Your task to perform on an android device: turn on bluetooth scan Image 0: 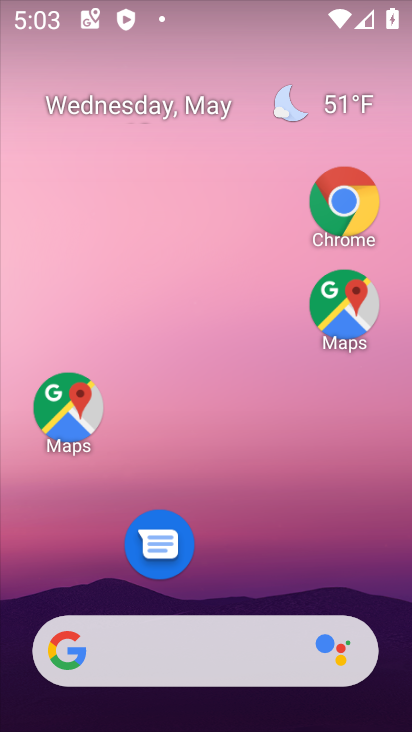
Step 0: drag from (215, 579) to (192, 150)
Your task to perform on an android device: turn on bluetooth scan Image 1: 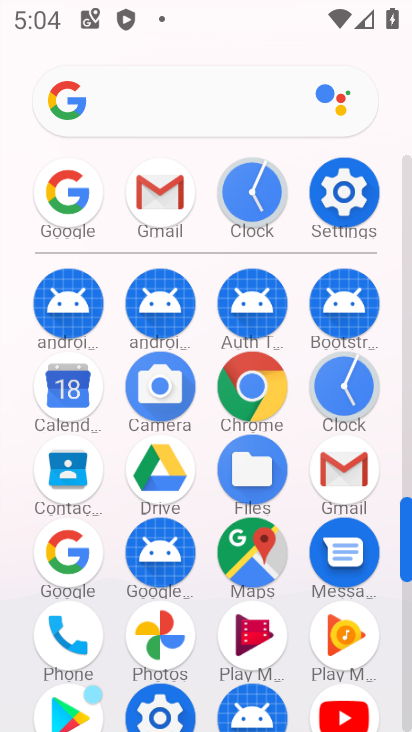
Step 1: click (331, 198)
Your task to perform on an android device: turn on bluetooth scan Image 2: 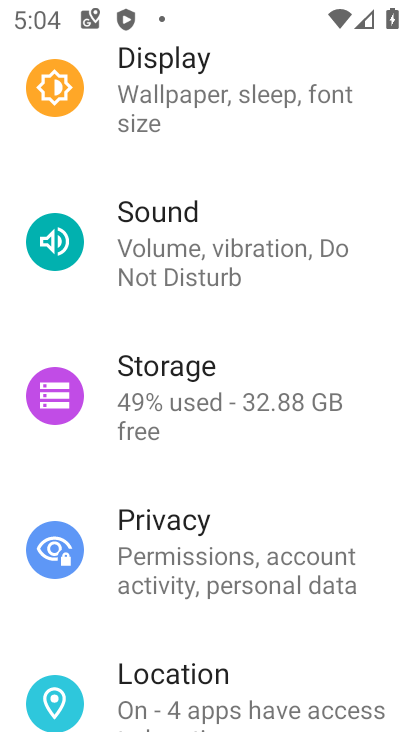
Step 2: click (172, 696)
Your task to perform on an android device: turn on bluetooth scan Image 3: 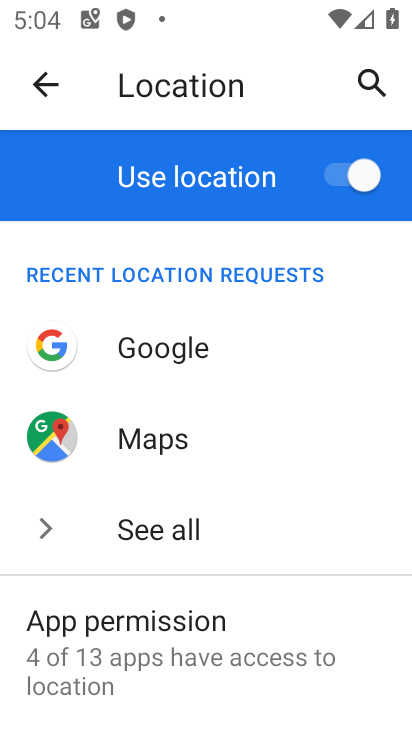
Step 3: drag from (164, 667) to (206, 414)
Your task to perform on an android device: turn on bluetooth scan Image 4: 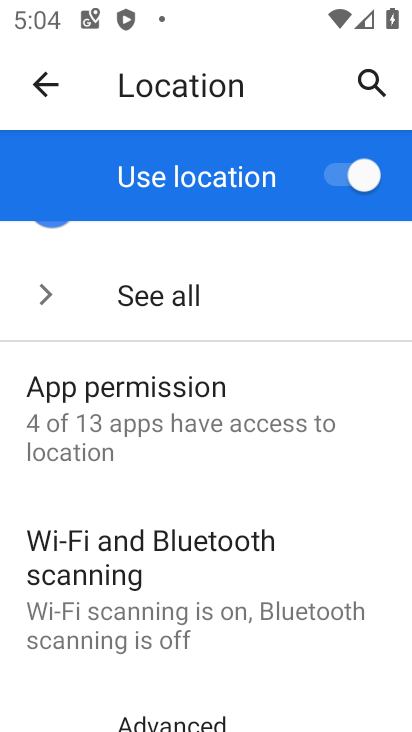
Step 4: click (121, 596)
Your task to perform on an android device: turn on bluetooth scan Image 5: 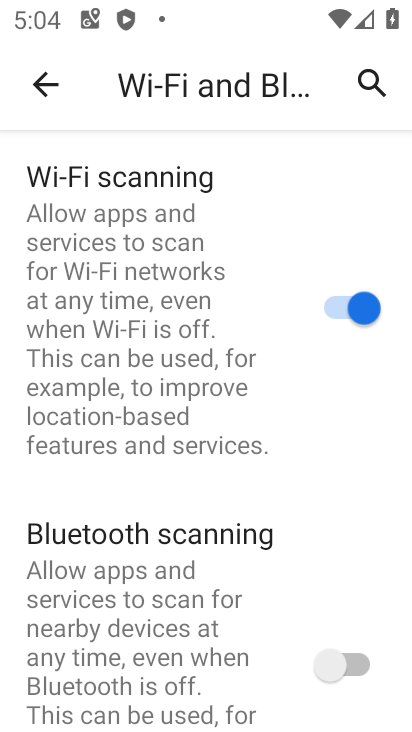
Step 5: click (355, 667)
Your task to perform on an android device: turn on bluetooth scan Image 6: 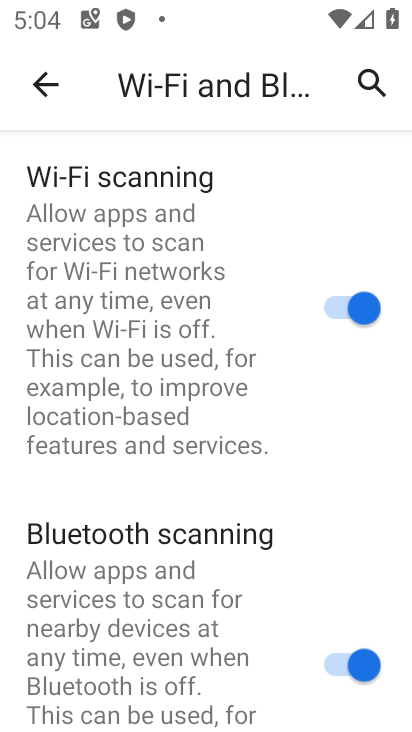
Step 6: task complete